Your task to perform on an android device: Open battery settings Image 0: 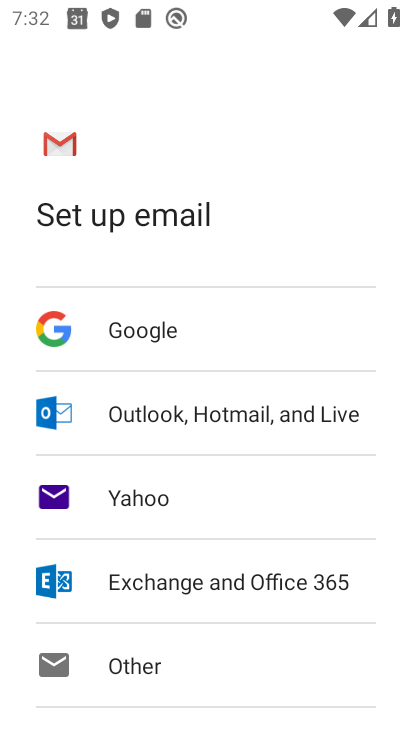
Step 0: press home button
Your task to perform on an android device: Open battery settings Image 1: 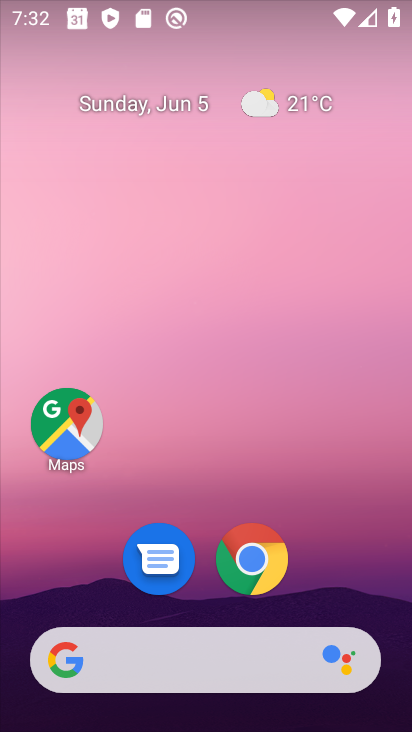
Step 1: drag from (190, 615) to (109, 73)
Your task to perform on an android device: Open battery settings Image 2: 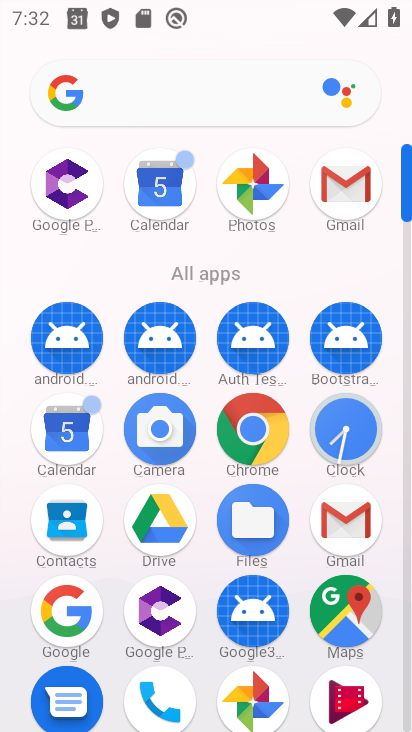
Step 2: drag from (107, 650) to (100, 166)
Your task to perform on an android device: Open battery settings Image 3: 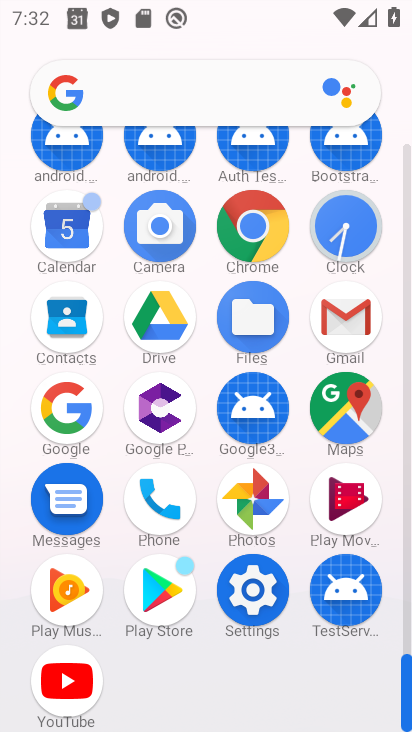
Step 3: click (261, 600)
Your task to perform on an android device: Open battery settings Image 4: 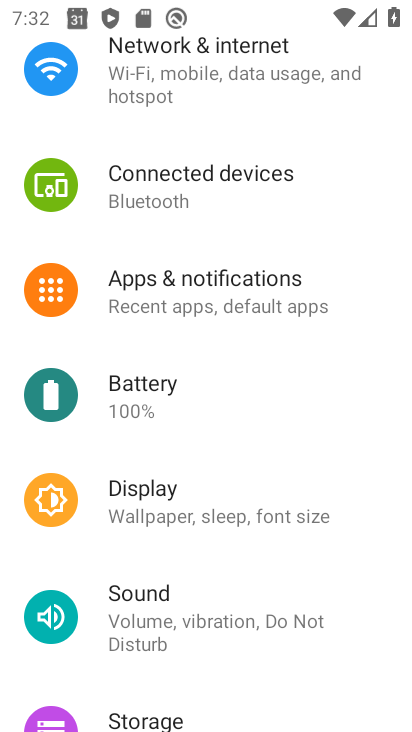
Step 4: drag from (261, 600) to (233, 520)
Your task to perform on an android device: Open battery settings Image 5: 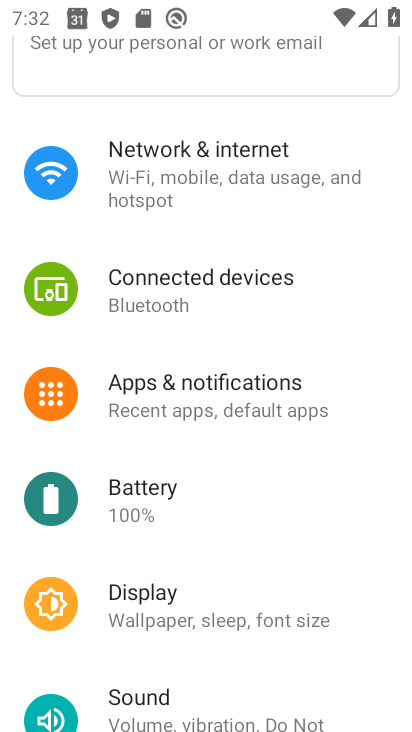
Step 5: click (182, 498)
Your task to perform on an android device: Open battery settings Image 6: 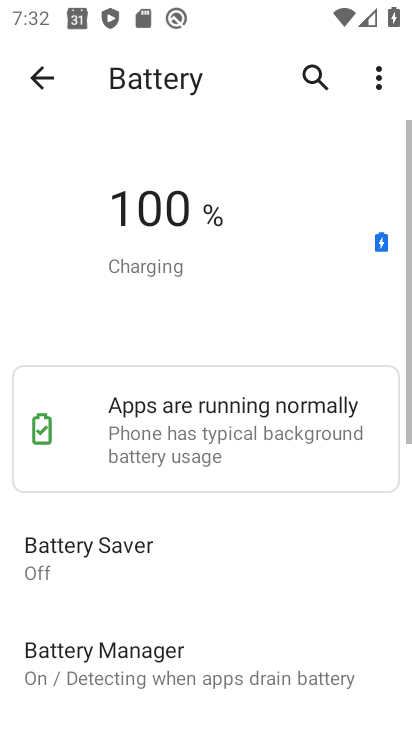
Step 6: task complete